Your task to perform on an android device: Open the calendar app, open the side menu, and click the "Day" option Image 0: 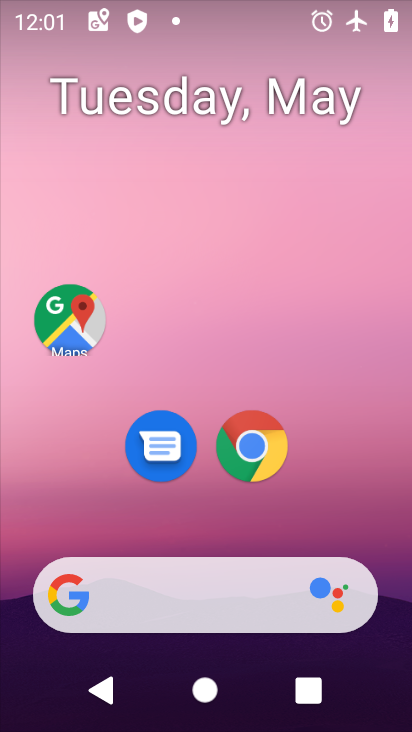
Step 0: drag from (313, 499) to (283, 186)
Your task to perform on an android device: Open the calendar app, open the side menu, and click the "Day" option Image 1: 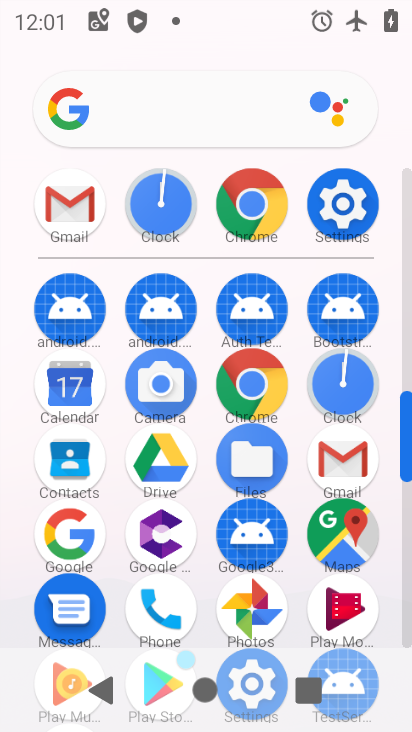
Step 1: click (72, 377)
Your task to perform on an android device: Open the calendar app, open the side menu, and click the "Day" option Image 2: 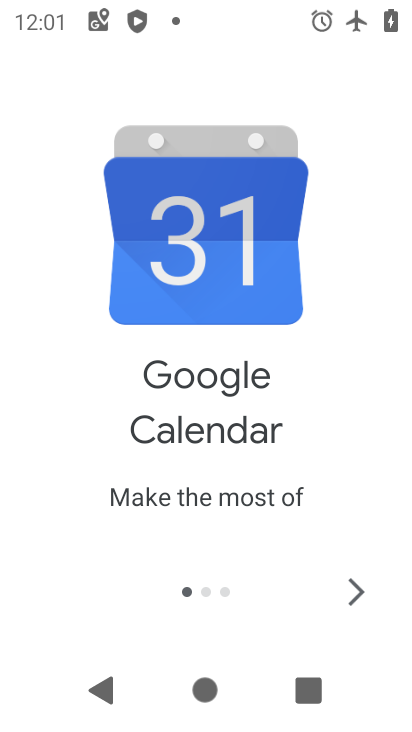
Step 2: click (331, 591)
Your task to perform on an android device: Open the calendar app, open the side menu, and click the "Day" option Image 3: 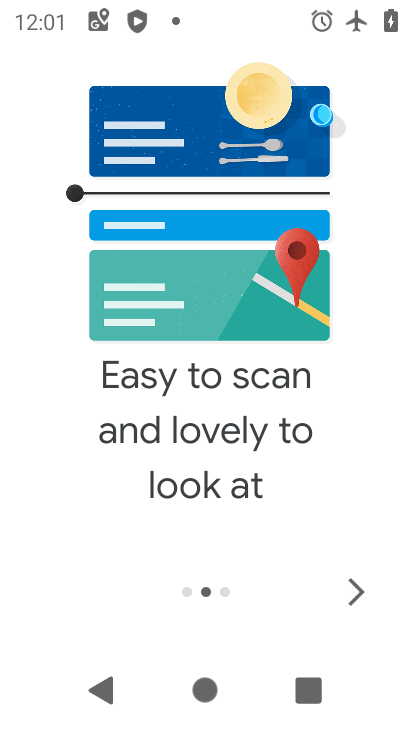
Step 3: click (332, 592)
Your task to perform on an android device: Open the calendar app, open the side menu, and click the "Day" option Image 4: 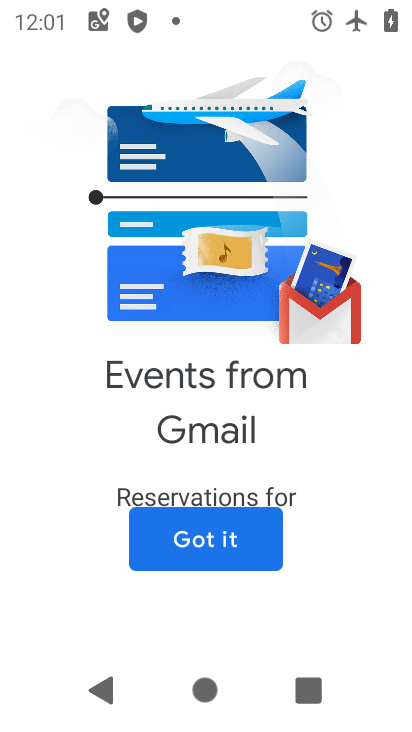
Step 4: click (222, 538)
Your task to perform on an android device: Open the calendar app, open the side menu, and click the "Day" option Image 5: 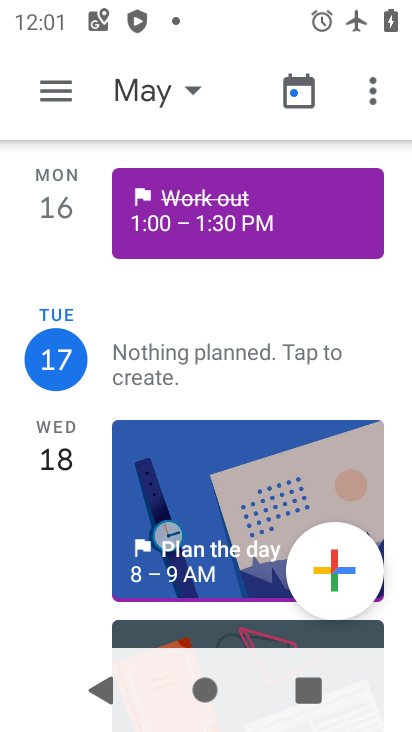
Step 5: click (55, 79)
Your task to perform on an android device: Open the calendar app, open the side menu, and click the "Day" option Image 6: 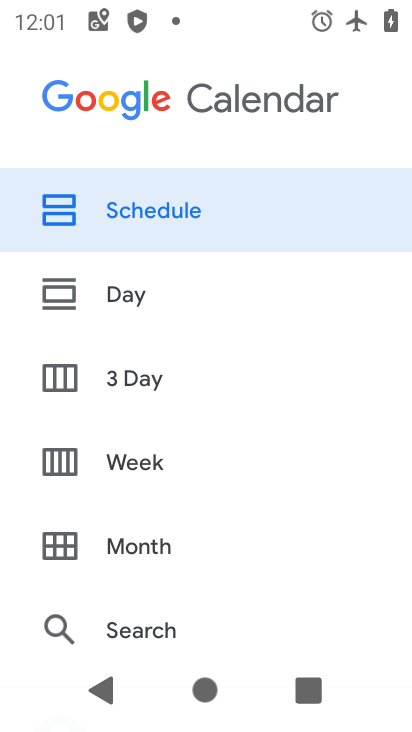
Step 6: click (155, 284)
Your task to perform on an android device: Open the calendar app, open the side menu, and click the "Day" option Image 7: 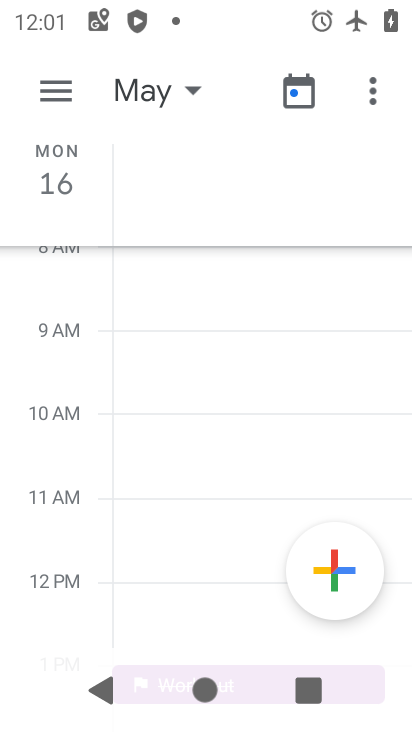
Step 7: task complete